Your task to perform on an android device: see creations saved in the google photos Image 0: 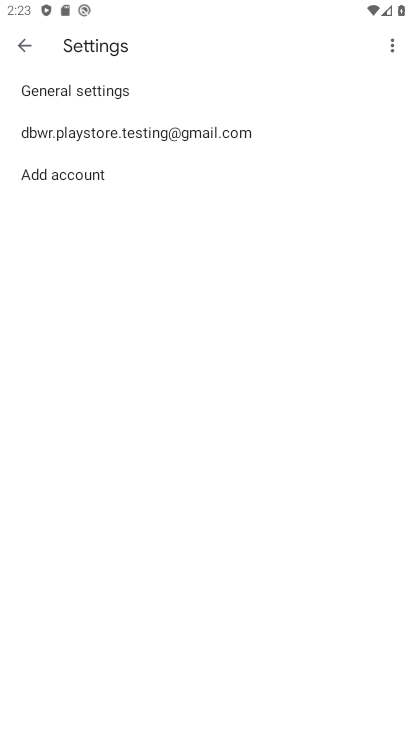
Step 0: press home button
Your task to perform on an android device: see creations saved in the google photos Image 1: 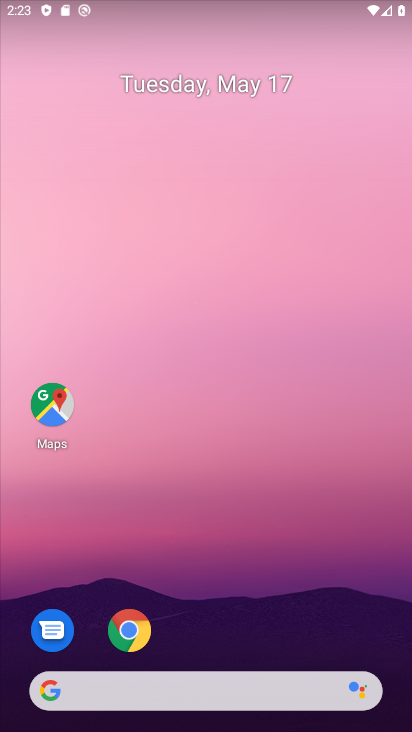
Step 1: drag from (142, 575) to (175, 209)
Your task to perform on an android device: see creations saved in the google photos Image 2: 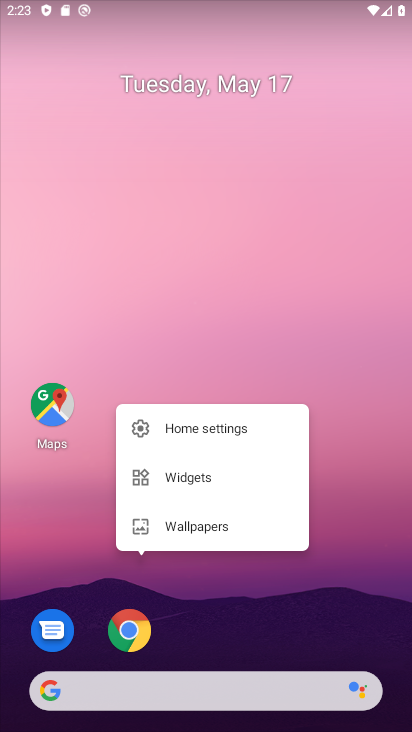
Step 2: click (339, 496)
Your task to perform on an android device: see creations saved in the google photos Image 3: 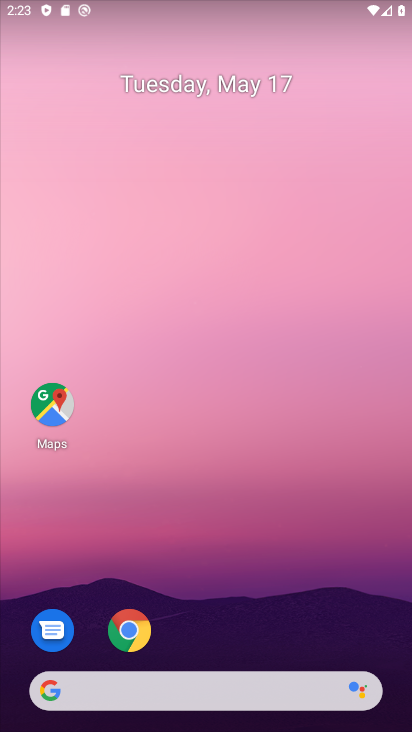
Step 3: drag from (271, 682) to (267, 233)
Your task to perform on an android device: see creations saved in the google photos Image 4: 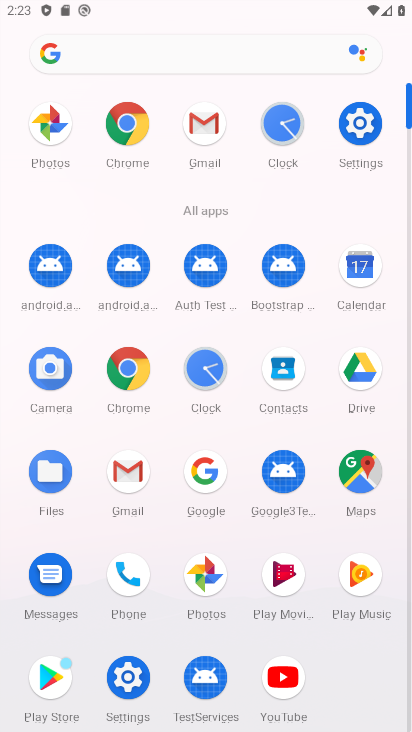
Step 4: click (209, 584)
Your task to perform on an android device: see creations saved in the google photos Image 5: 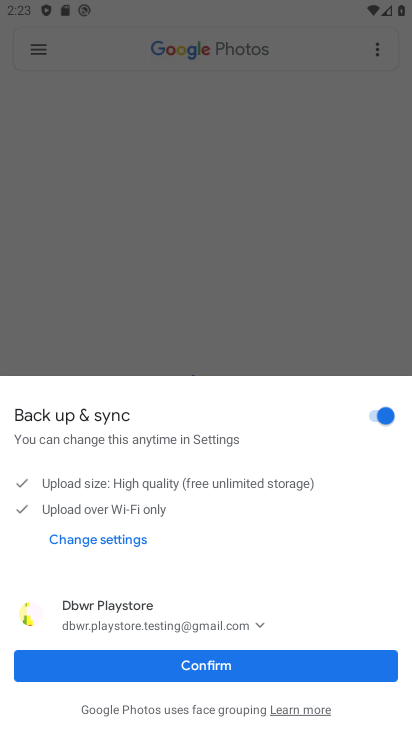
Step 5: click (170, 658)
Your task to perform on an android device: see creations saved in the google photos Image 6: 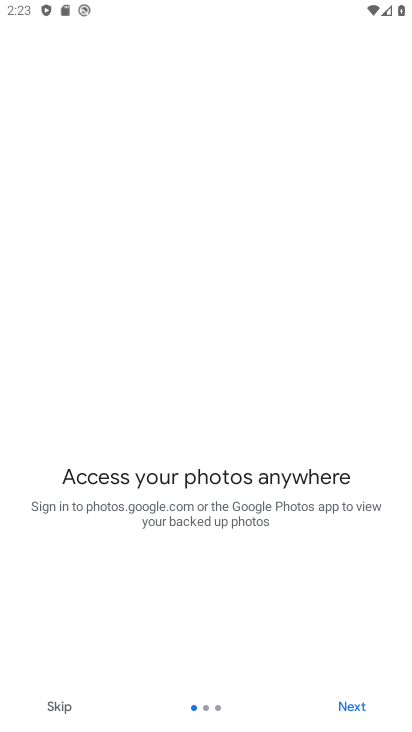
Step 6: click (339, 709)
Your task to perform on an android device: see creations saved in the google photos Image 7: 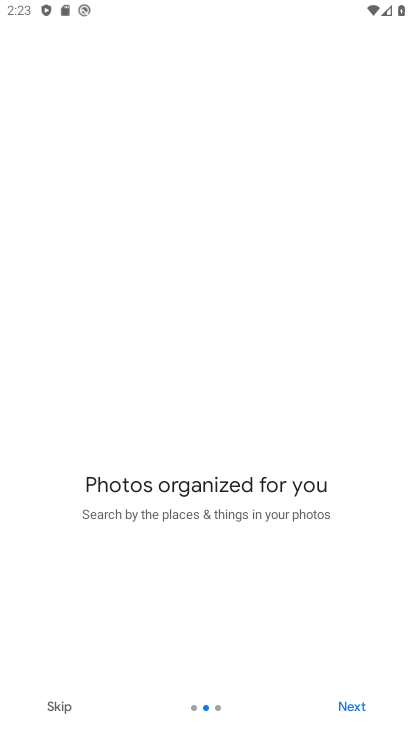
Step 7: click (339, 709)
Your task to perform on an android device: see creations saved in the google photos Image 8: 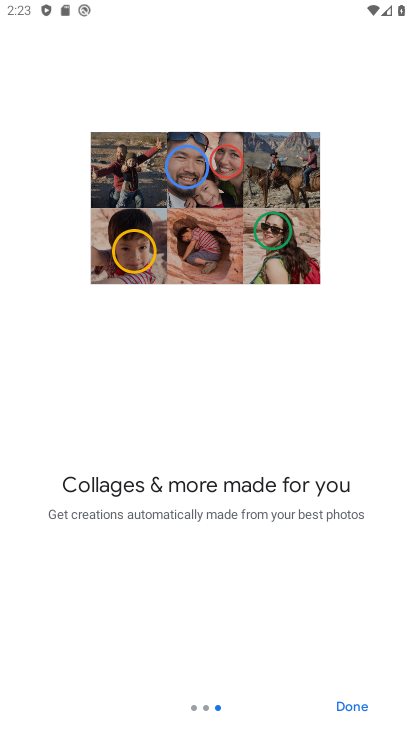
Step 8: click (339, 709)
Your task to perform on an android device: see creations saved in the google photos Image 9: 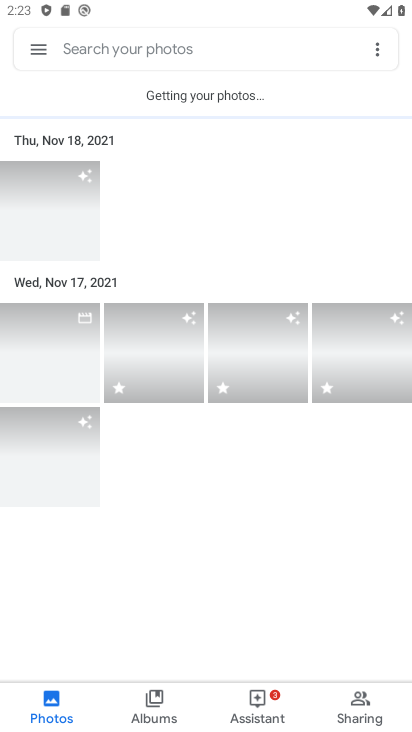
Step 9: click (148, 717)
Your task to perform on an android device: see creations saved in the google photos Image 10: 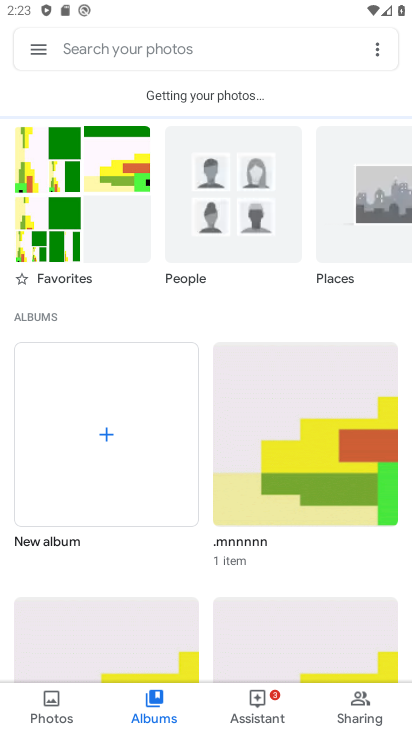
Step 10: task complete